Your task to perform on an android device: change your default location settings in chrome Image 0: 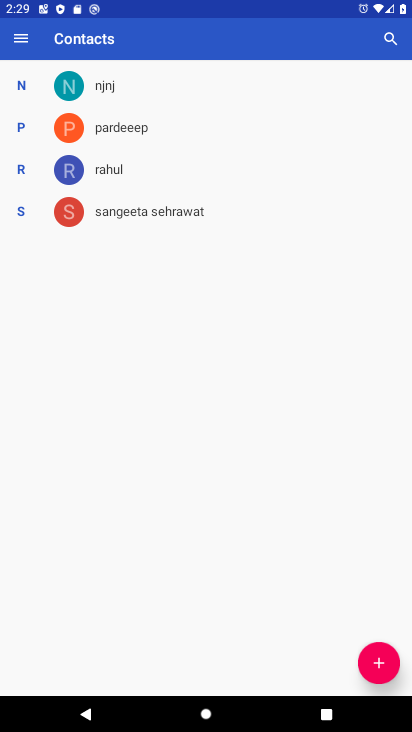
Step 0: press home button
Your task to perform on an android device: change your default location settings in chrome Image 1: 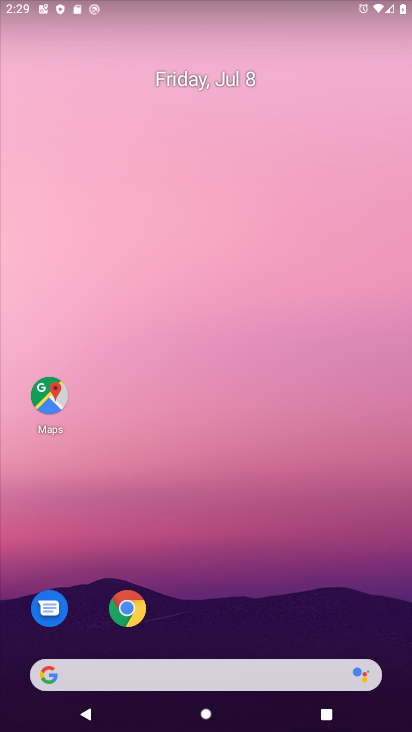
Step 1: click (129, 607)
Your task to perform on an android device: change your default location settings in chrome Image 2: 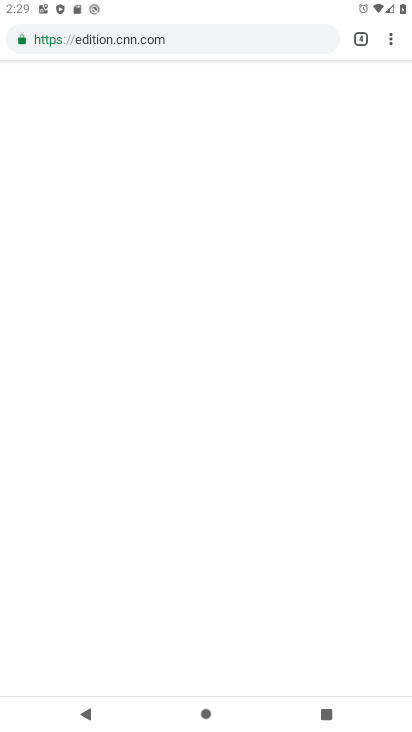
Step 2: click (396, 34)
Your task to perform on an android device: change your default location settings in chrome Image 3: 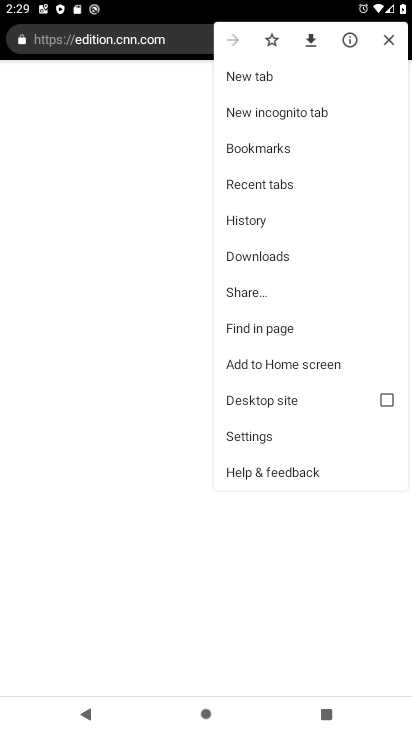
Step 3: click (263, 441)
Your task to perform on an android device: change your default location settings in chrome Image 4: 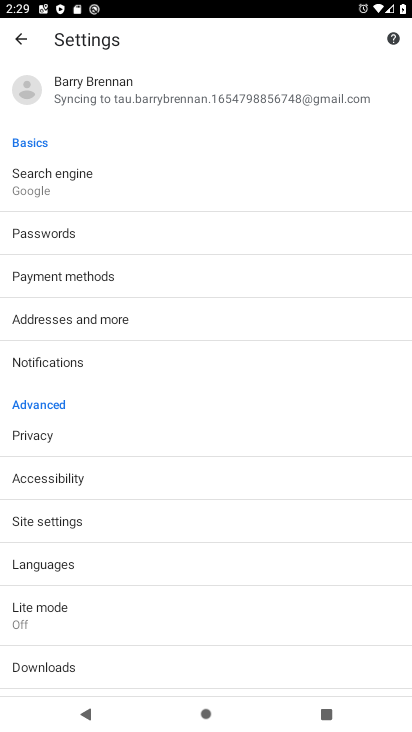
Step 4: click (65, 536)
Your task to perform on an android device: change your default location settings in chrome Image 5: 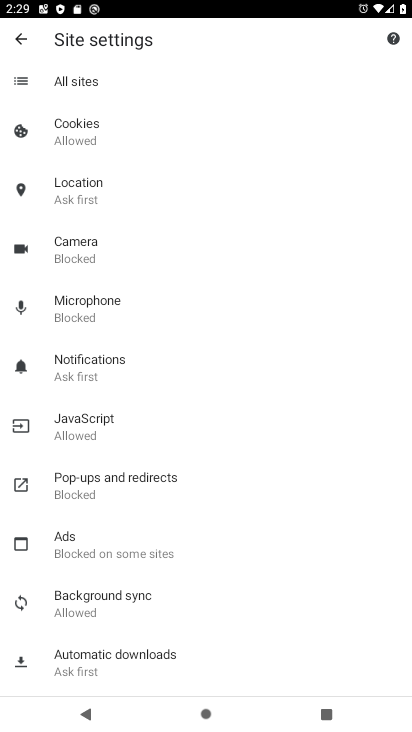
Step 5: click (132, 178)
Your task to perform on an android device: change your default location settings in chrome Image 6: 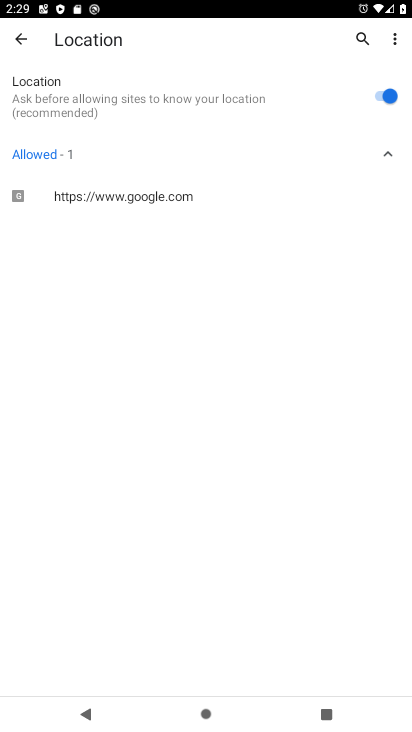
Step 6: click (386, 93)
Your task to perform on an android device: change your default location settings in chrome Image 7: 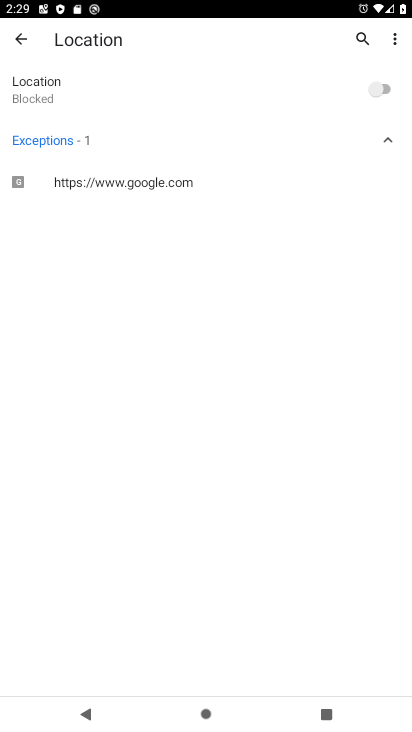
Step 7: task complete